Your task to perform on an android device: change notifications settings Image 0: 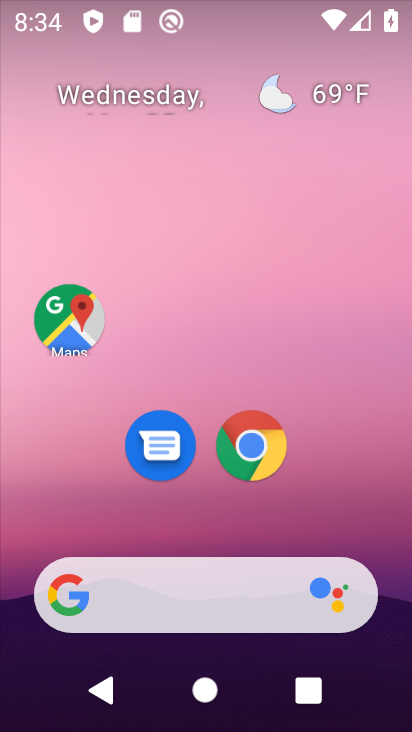
Step 0: drag from (353, 517) to (397, 132)
Your task to perform on an android device: change notifications settings Image 1: 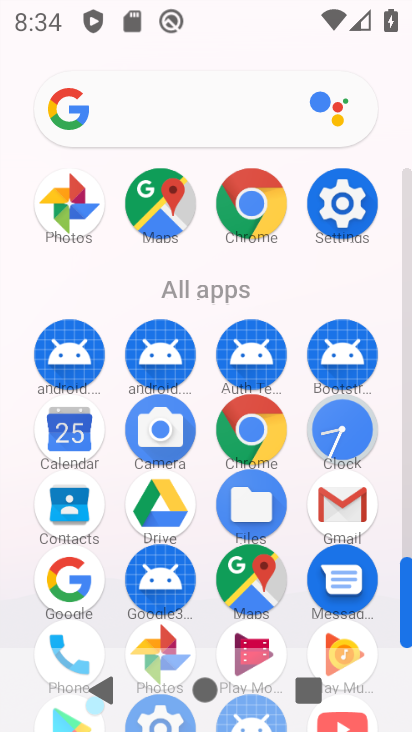
Step 1: click (336, 207)
Your task to perform on an android device: change notifications settings Image 2: 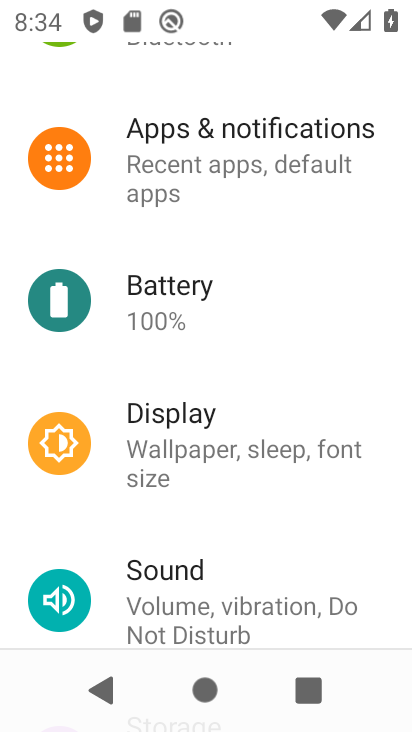
Step 2: click (247, 139)
Your task to perform on an android device: change notifications settings Image 3: 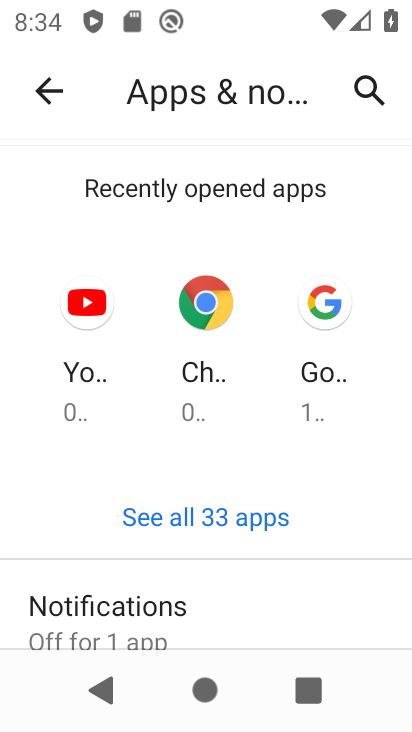
Step 3: click (143, 611)
Your task to perform on an android device: change notifications settings Image 4: 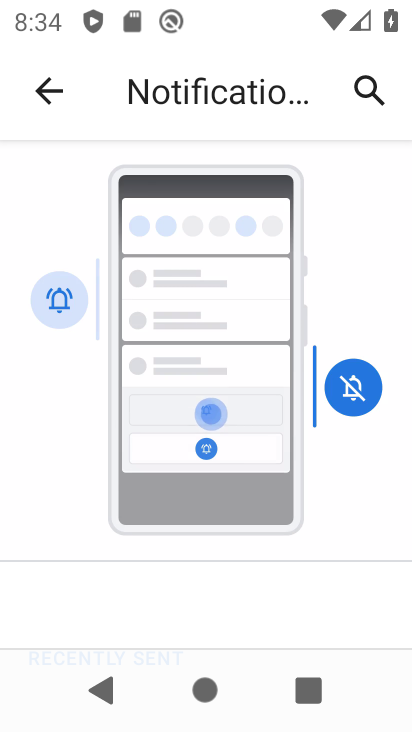
Step 4: drag from (298, 596) to (343, 191)
Your task to perform on an android device: change notifications settings Image 5: 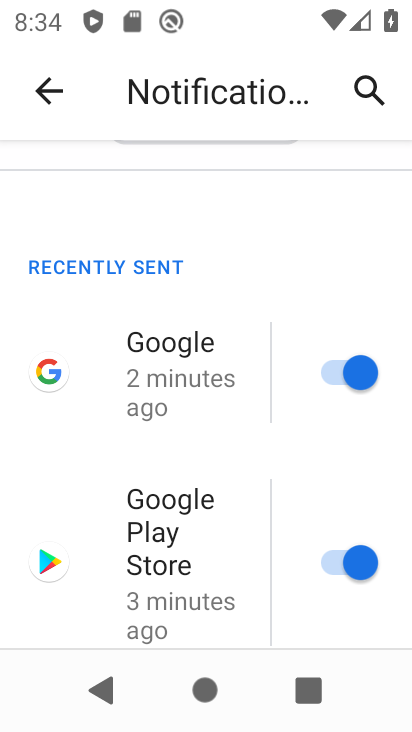
Step 5: drag from (239, 530) to (270, 187)
Your task to perform on an android device: change notifications settings Image 6: 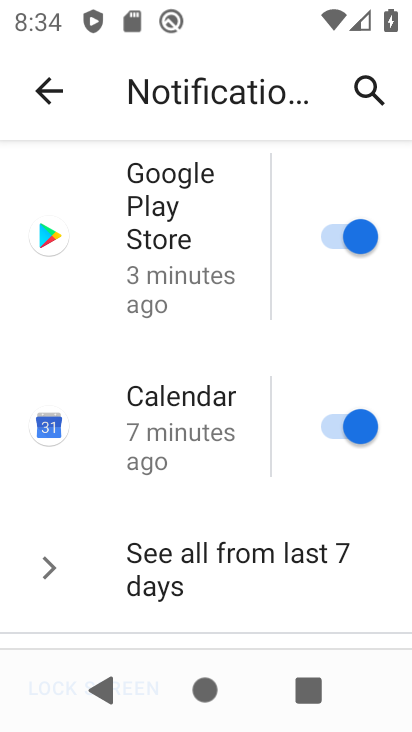
Step 6: drag from (227, 609) to (257, 263)
Your task to perform on an android device: change notifications settings Image 7: 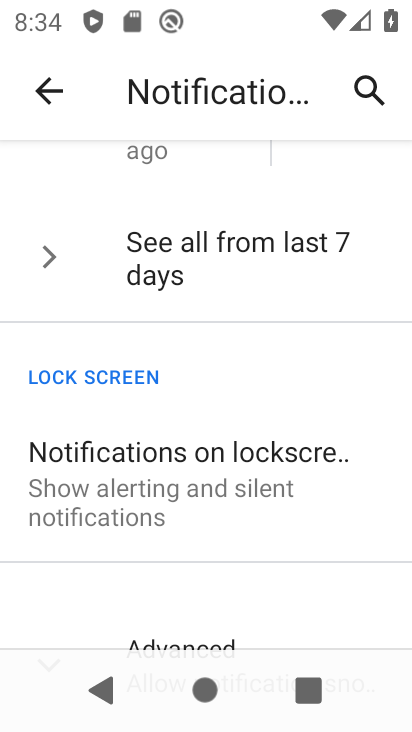
Step 7: drag from (238, 513) to (244, 357)
Your task to perform on an android device: change notifications settings Image 8: 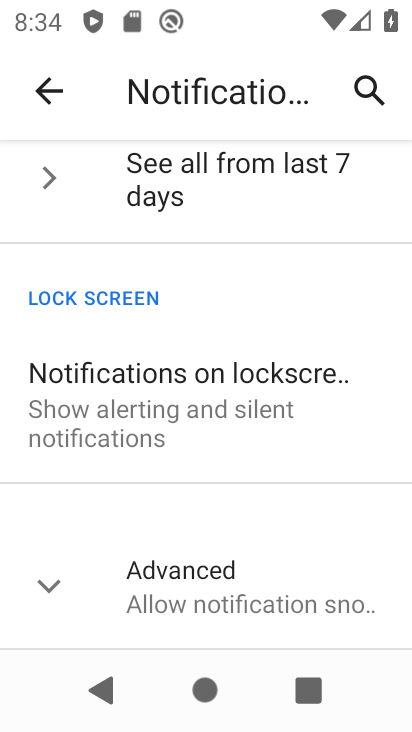
Step 8: click (189, 368)
Your task to perform on an android device: change notifications settings Image 9: 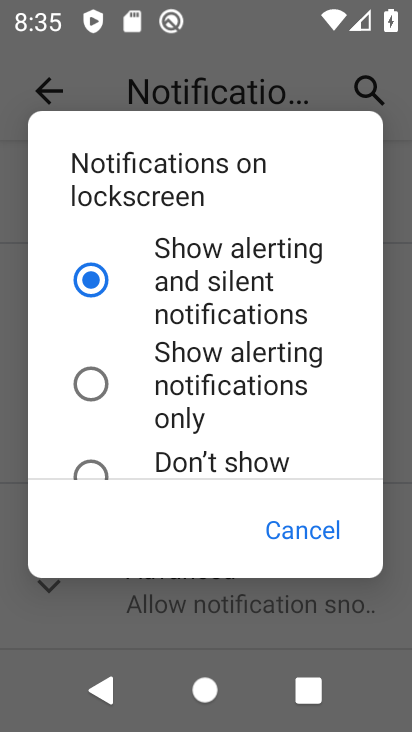
Step 9: click (173, 383)
Your task to perform on an android device: change notifications settings Image 10: 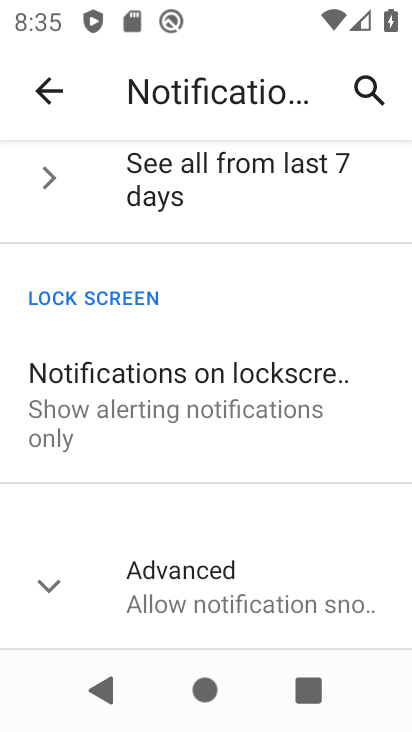
Step 10: task complete